Your task to perform on an android device: change your default location settings in chrome Image 0: 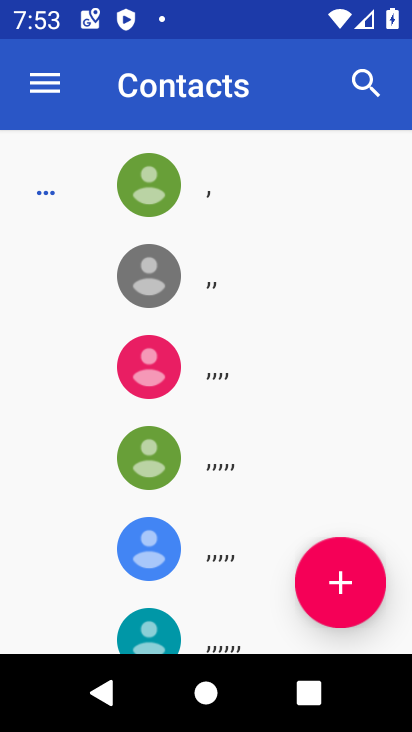
Step 0: press home button
Your task to perform on an android device: change your default location settings in chrome Image 1: 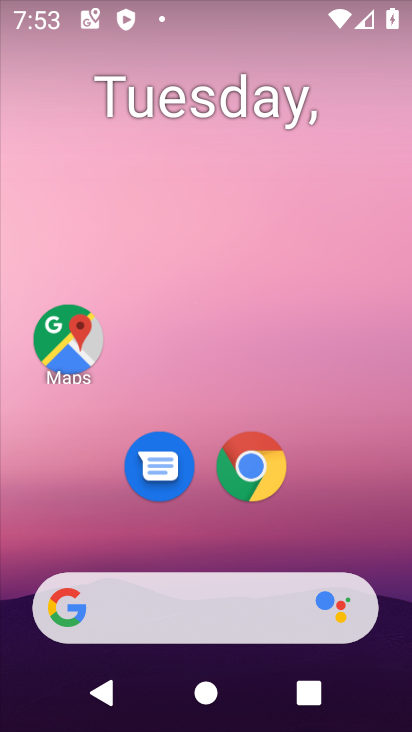
Step 1: click (251, 457)
Your task to perform on an android device: change your default location settings in chrome Image 2: 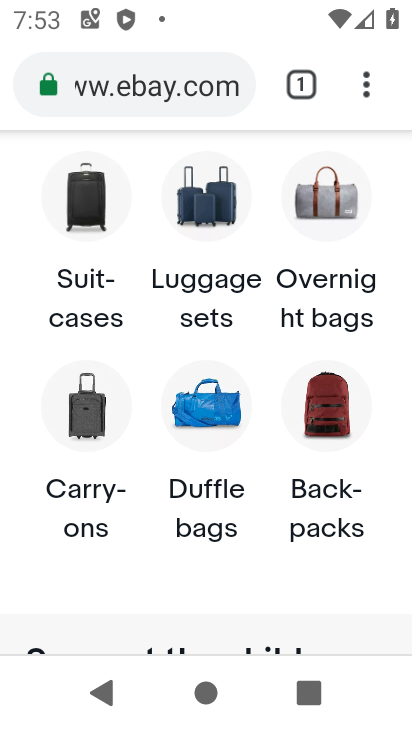
Step 2: click (366, 80)
Your task to perform on an android device: change your default location settings in chrome Image 3: 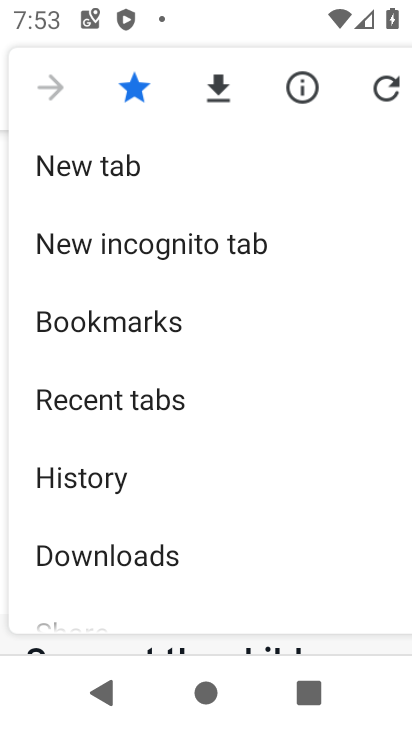
Step 3: drag from (185, 578) to (237, 59)
Your task to perform on an android device: change your default location settings in chrome Image 4: 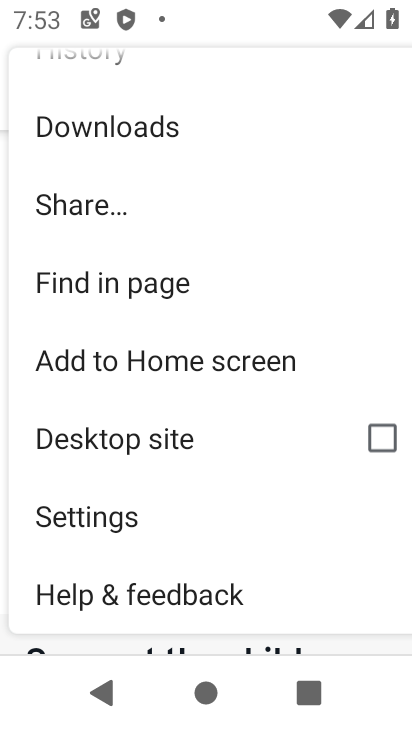
Step 4: click (147, 513)
Your task to perform on an android device: change your default location settings in chrome Image 5: 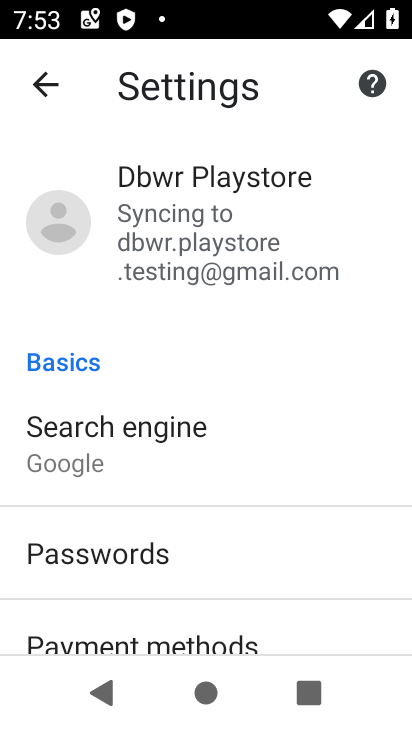
Step 5: drag from (256, 625) to (261, 216)
Your task to perform on an android device: change your default location settings in chrome Image 6: 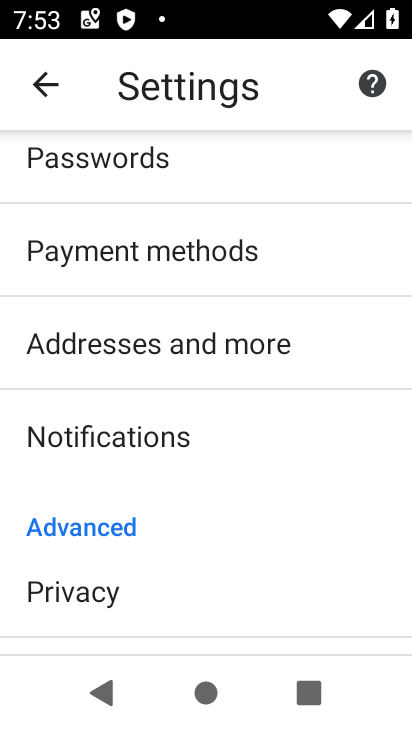
Step 6: drag from (175, 591) to (183, 100)
Your task to perform on an android device: change your default location settings in chrome Image 7: 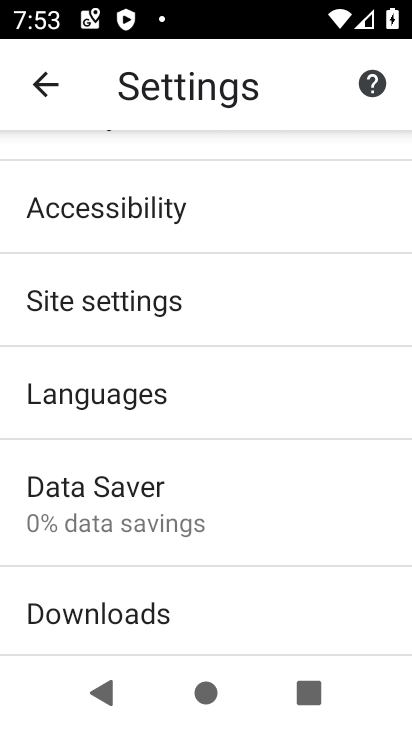
Step 7: click (194, 289)
Your task to perform on an android device: change your default location settings in chrome Image 8: 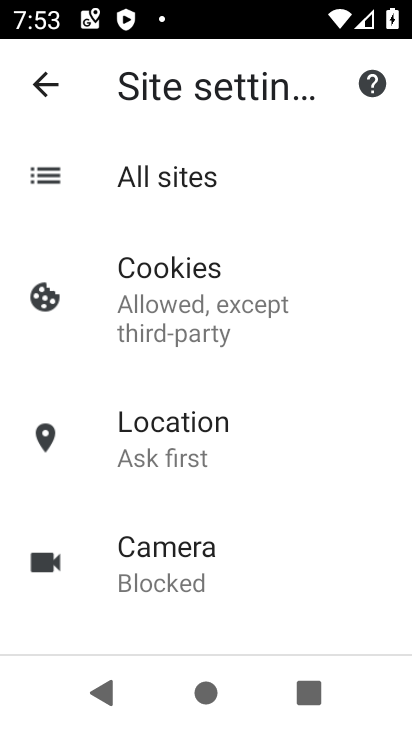
Step 8: click (225, 442)
Your task to perform on an android device: change your default location settings in chrome Image 9: 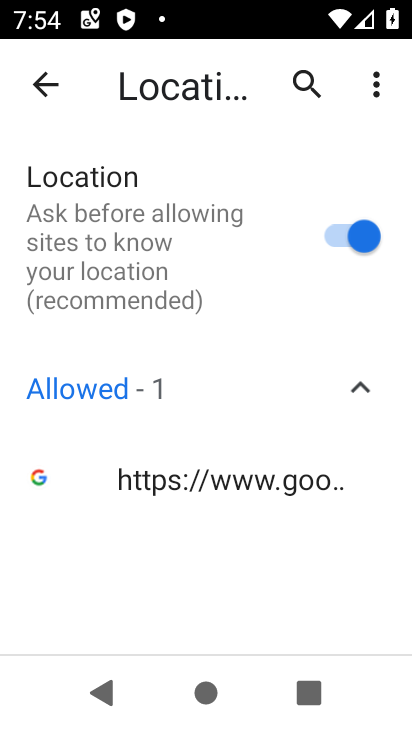
Step 9: click (345, 226)
Your task to perform on an android device: change your default location settings in chrome Image 10: 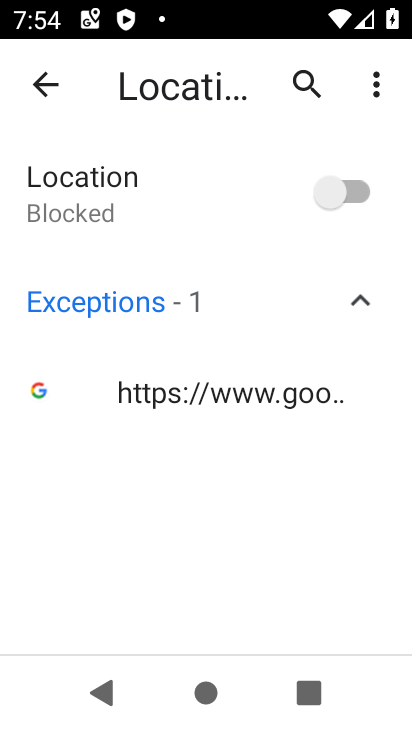
Step 10: task complete